Your task to perform on an android device: Open Google Maps and go to "Timeline" Image 0: 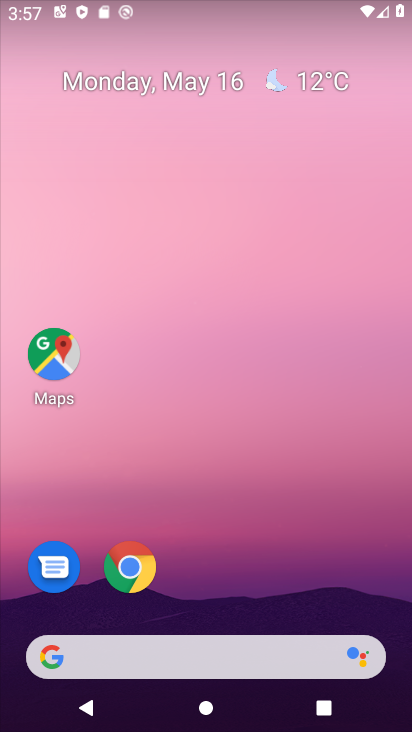
Step 0: drag from (282, 522) to (269, 0)
Your task to perform on an android device: Open Google Maps and go to "Timeline" Image 1: 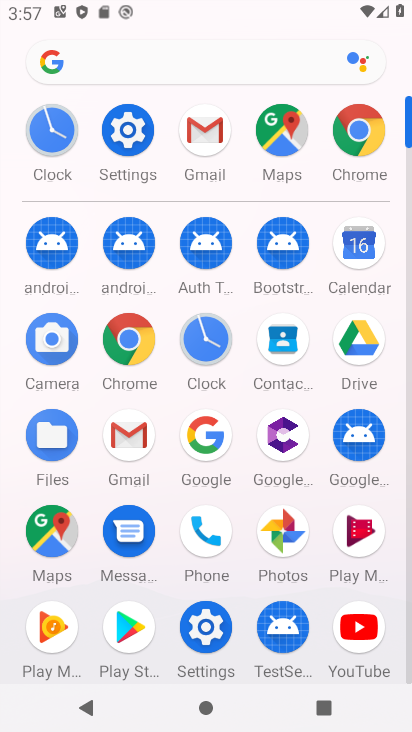
Step 1: click (53, 516)
Your task to perform on an android device: Open Google Maps and go to "Timeline" Image 2: 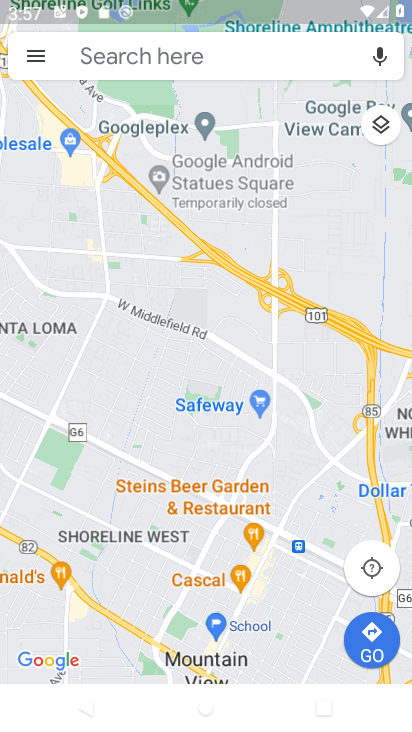
Step 2: click (29, 51)
Your task to perform on an android device: Open Google Maps and go to "Timeline" Image 3: 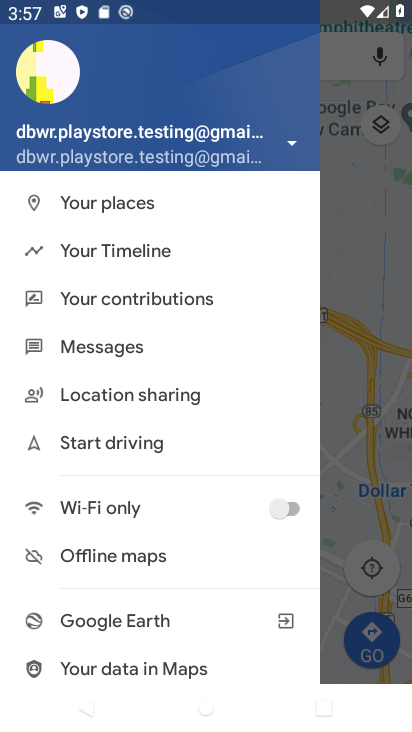
Step 3: click (125, 249)
Your task to perform on an android device: Open Google Maps and go to "Timeline" Image 4: 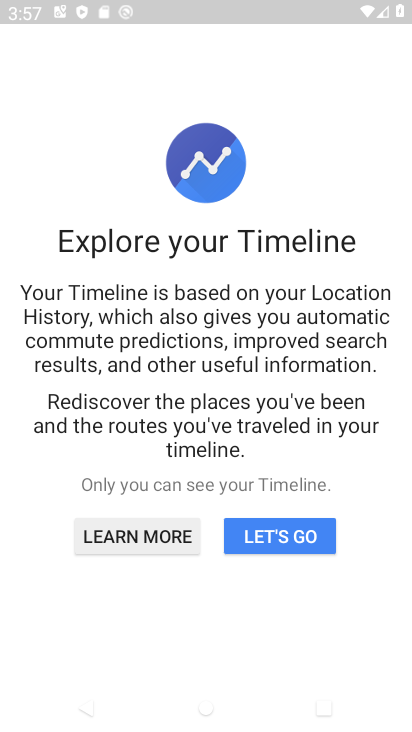
Step 4: click (316, 546)
Your task to perform on an android device: Open Google Maps and go to "Timeline" Image 5: 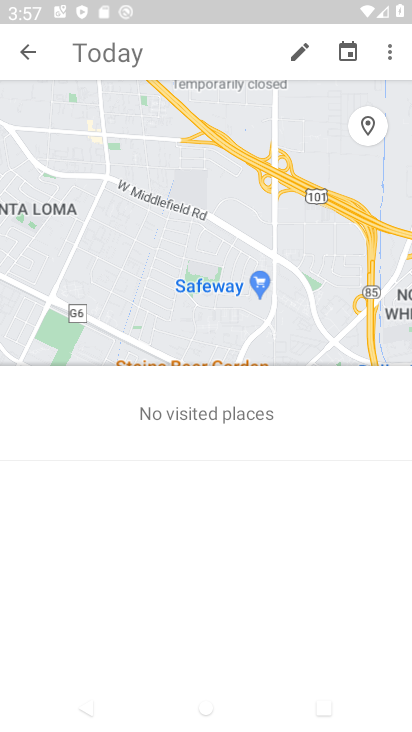
Step 5: task complete